Your task to perform on an android device: search for starred emails in the gmail app Image 0: 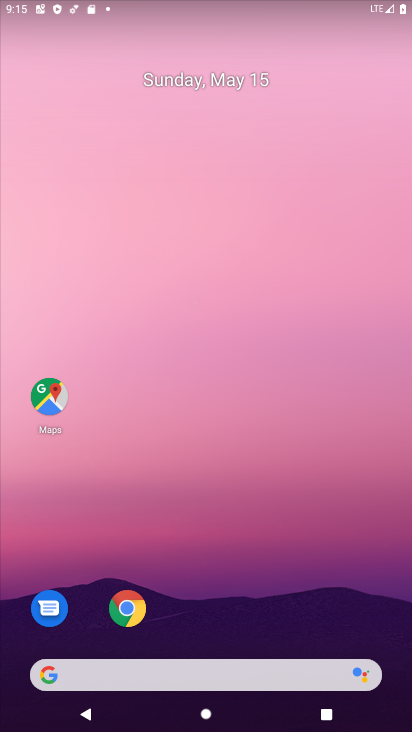
Step 0: drag from (230, 565) to (122, 3)
Your task to perform on an android device: search for starred emails in the gmail app Image 1: 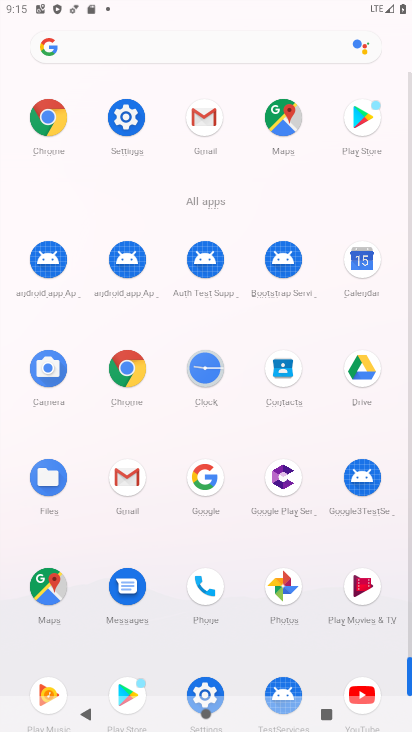
Step 1: click (204, 125)
Your task to perform on an android device: search for starred emails in the gmail app Image 2: 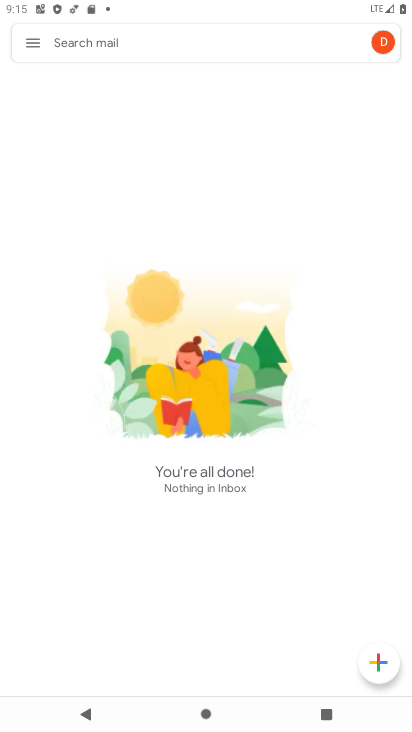
Step 2: click (24, 53)
Your task to perform on an android device: search for starred emails in the gmail app Image 3: 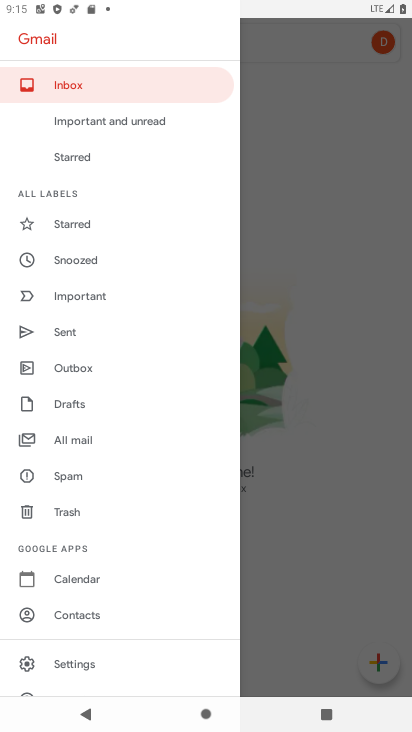
Step 3: click (87, 230)
Your task to perform on an android device: search for starred emails in the gmail app Image 4: 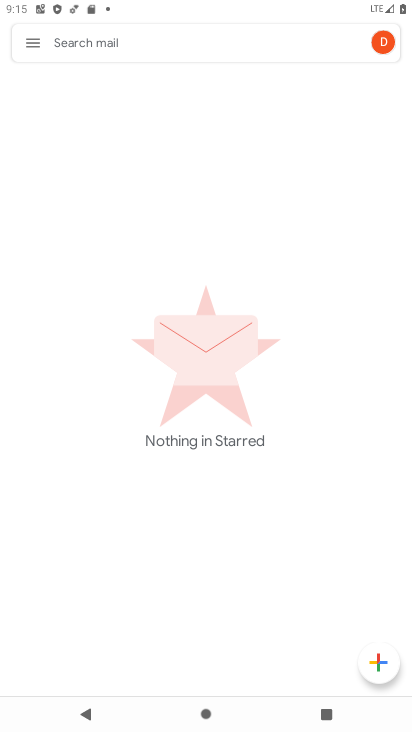
Step 4: task complete